Your task to perform on an android device: Turn on the flashlight Image 0: 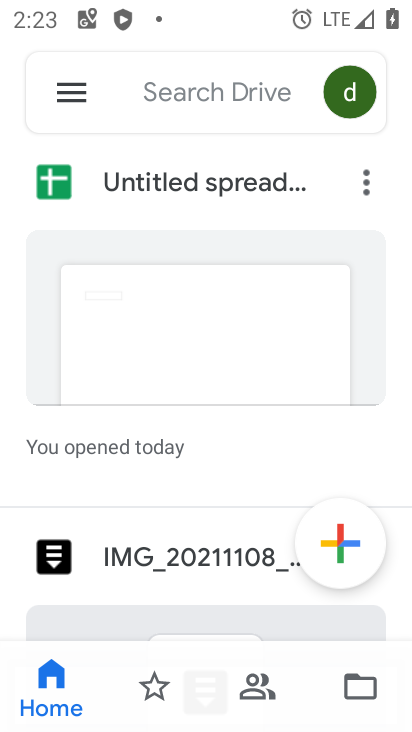
Step 0: press back button
Your task to perform on an android device: Turn on the flashlight Image 1: 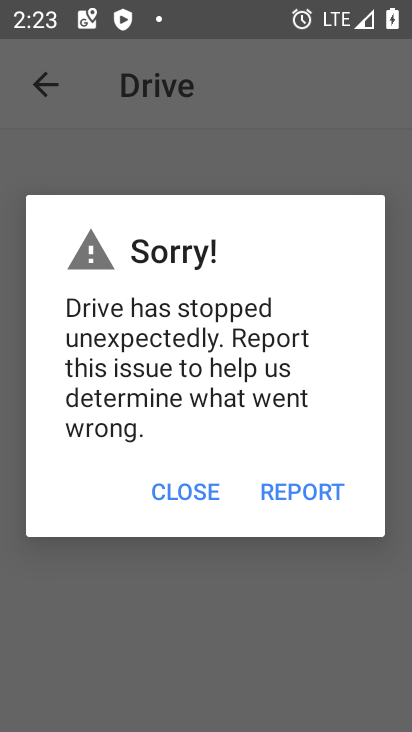
Step 1: press home button
Your task to perform on an android device: Turn on the flashlight Image 2: 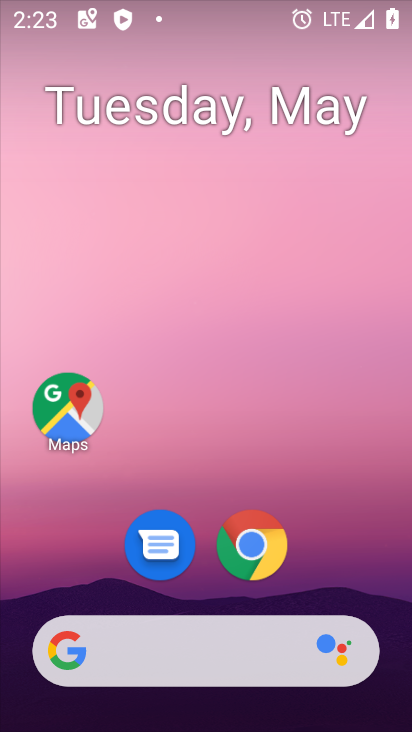
Step 2: drag from (314, 525) to (221, 43)
Your task to perform on an android device: Turn on the flashlight Image 3: 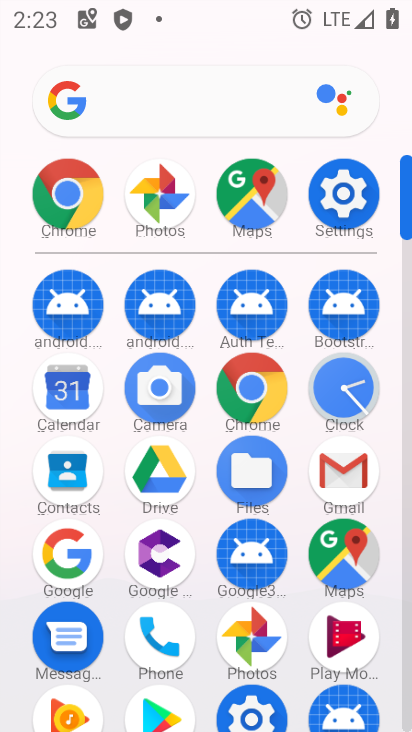
Step 3: click (344, 188)
Your task to perform on an android device: Turn on the flashlight Image 4: 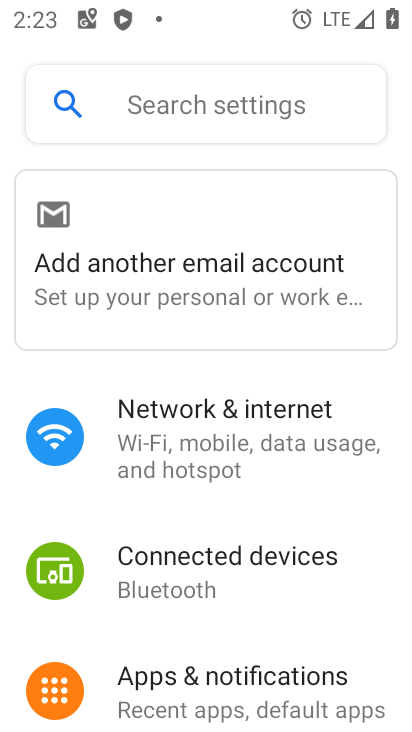
Step 4: click (260, 447)
Your task to perform on an android device: Turn on the flashlight Image 5: 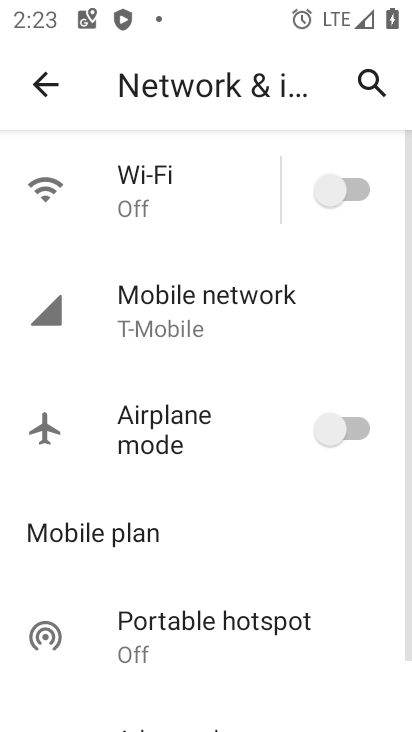
Step 5: drag from (177, 526) to (182, 177)
Your task to perform on an android device: Turn on the flashlight Image 6: 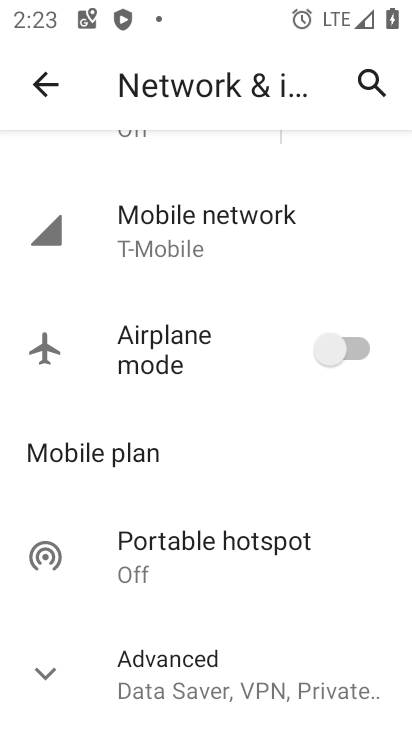
Step 6: click (26, 671)
Your task to perform on an android device: Turn on the flashlight Image 7: 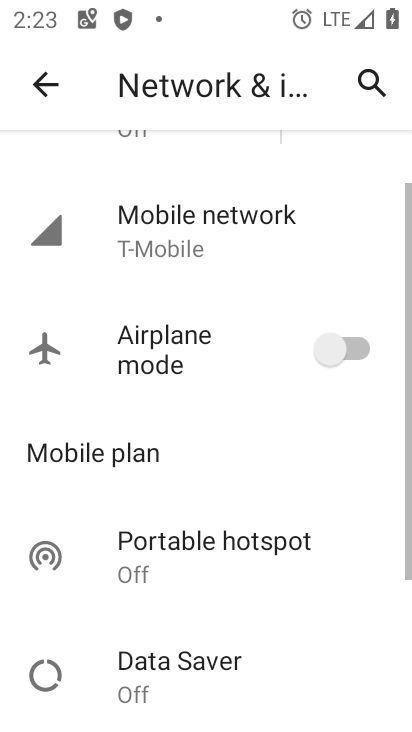
Step 7: task complete